Your task to perform on an android device: see sites visited before in the chrome app Image 0: 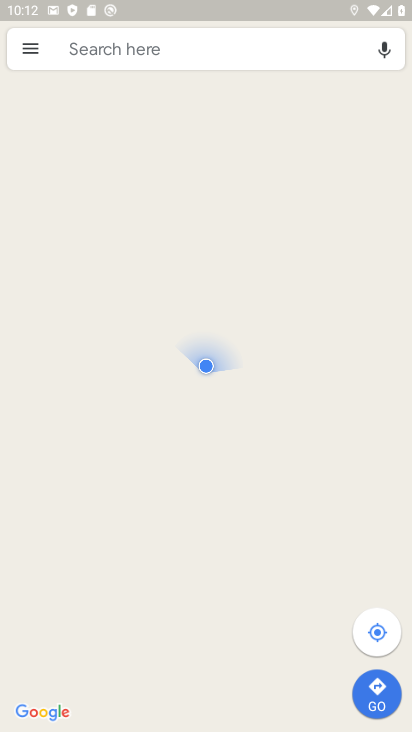
Step 0: press home button
Your task to perform on an android device: see sites visited before in the chrome app Image 1: 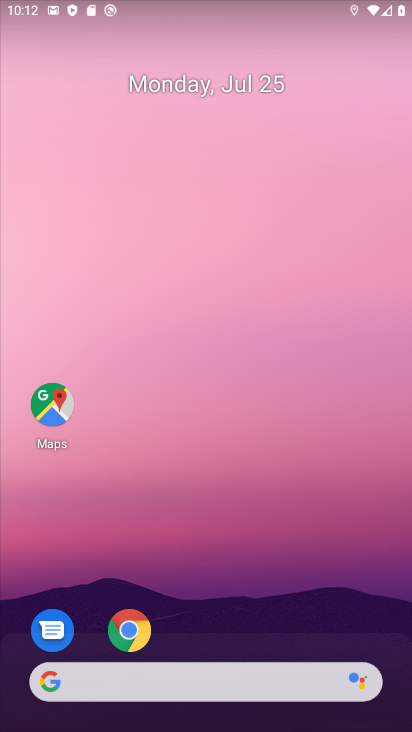
Step 1: click (132, 634)
Your task to perform on an android device: see sites visited before in the chrome app Image 2: 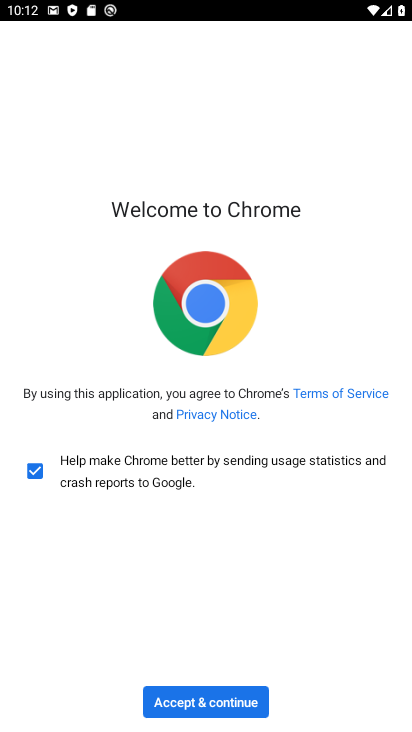
Step 2: click (228, 697)
Your task to perform on an android device: see sites visited before in the chrome app Image 3: 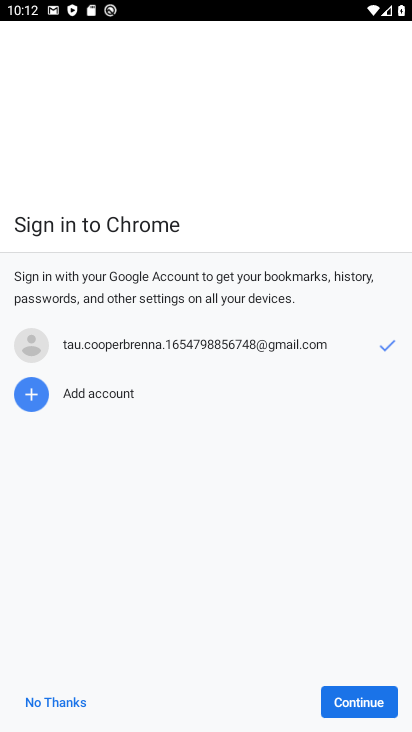
Step 3: click (360, 686)
Your task to perform on an android device: see sites visited before in the chrome app Image 4: 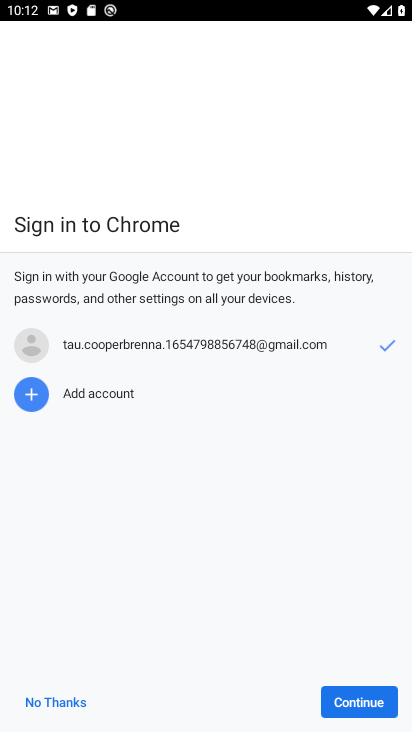
Step 4: click (360, 693)
Your task to perform on an android device: see sites visited before in the chrome app Image 5: 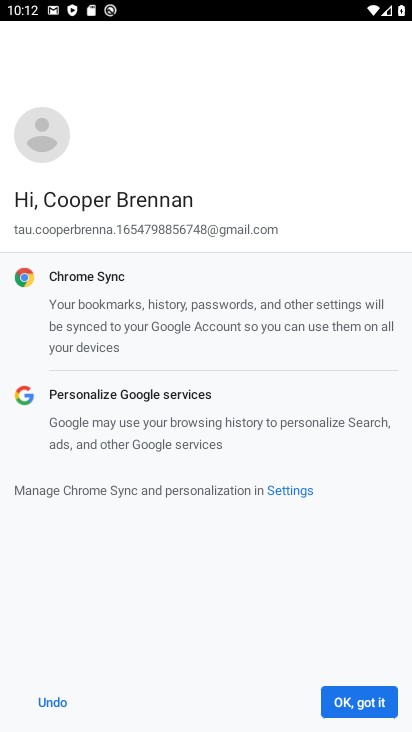
Step 5: click (352, 701)
Your task to perform on an android device: see sites visited before in the chrome app Image 6: 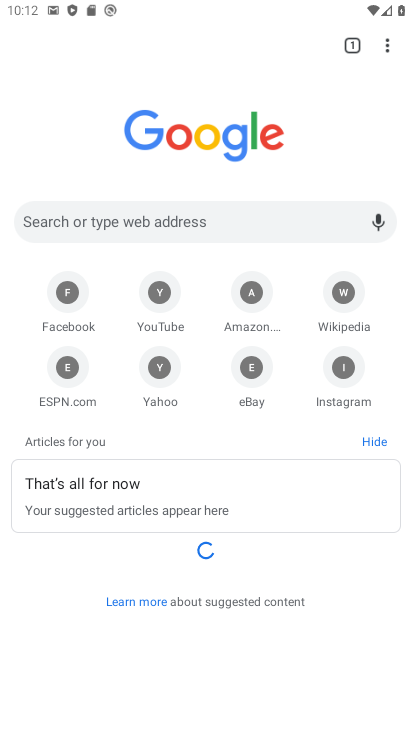
Step 6: click (393, 39)
Your task to perform on an android device: see sites visited before in the chrome app Image 7: 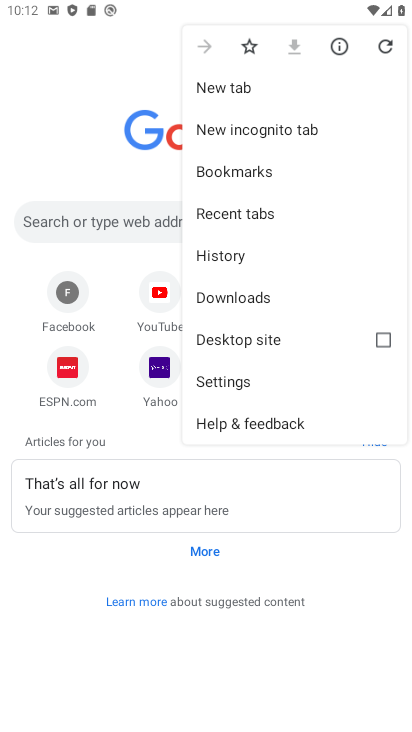
Step 7: click (280, 246)
Your task to perform on an android device: see sites visited before in the chrome app Image 8: 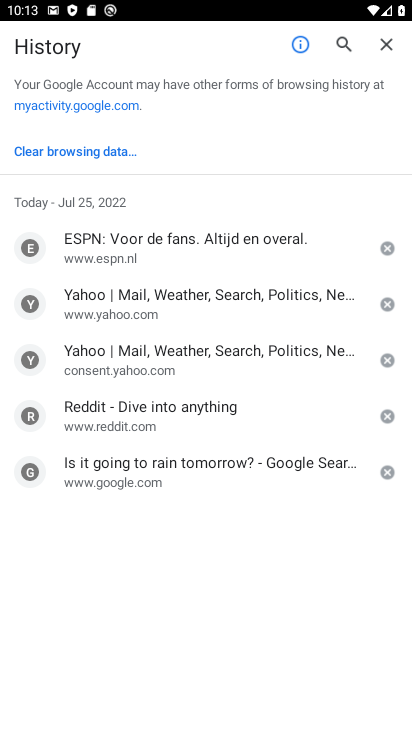
Step 8: task complete